Your task to perform on an android device: Open my contact list Image 0: 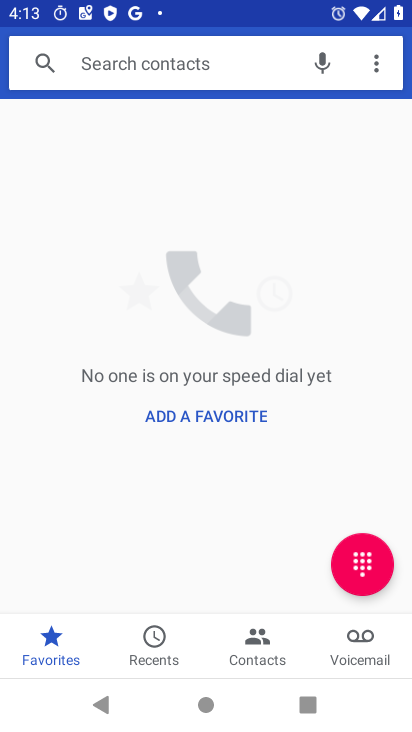
Step 0: press home button
Your task to perform on an android device: Open my contact list Image 1: 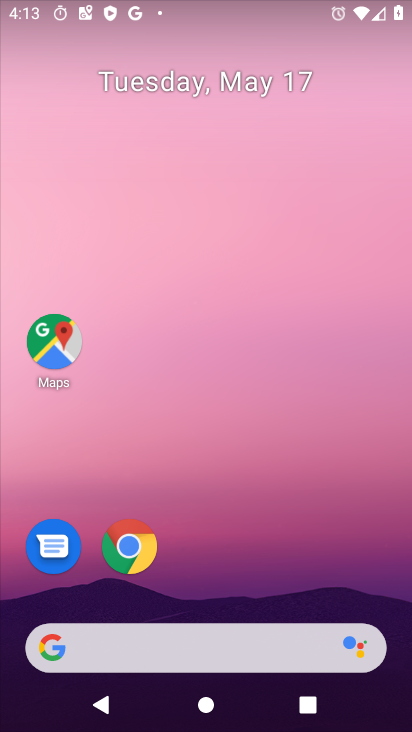
Step 1: drag from (393, 321) to (370, 169)
Your task to perform on an android device: Open my contact list Image 2: 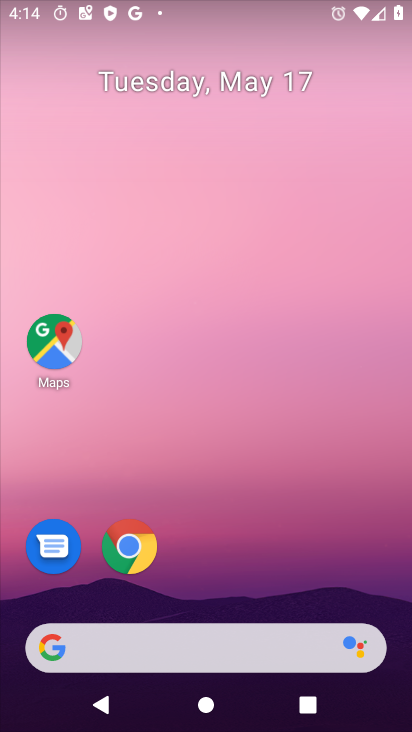
Step 2: drag from (400, 685) to (340, 268)
Your task to perform on an android device: Open my contact list Image 3: 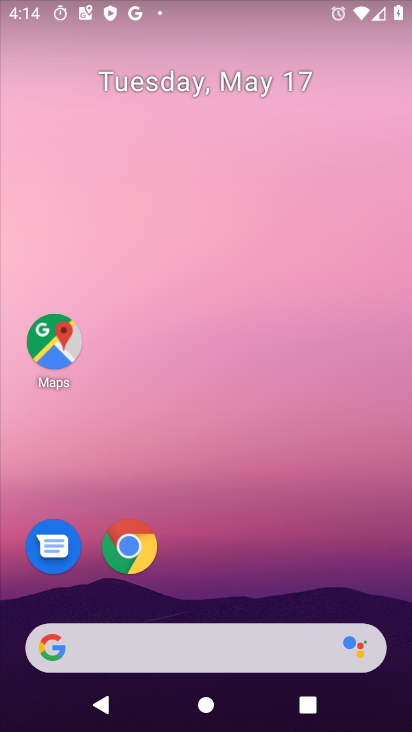
Step 3: drag from (400, 685) to (397, 314)
Your task to perform on an android device: Open my contact list Image 4: 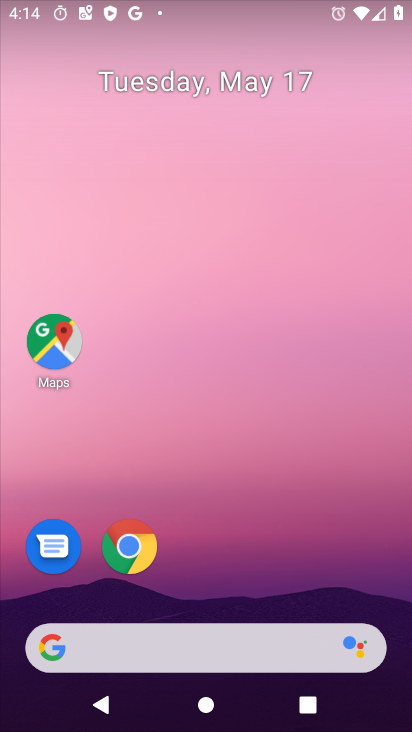
Step 4: drag from (386, 659) to (359, 259)
Your task to perform on an android device: Open my contact list Image 5: 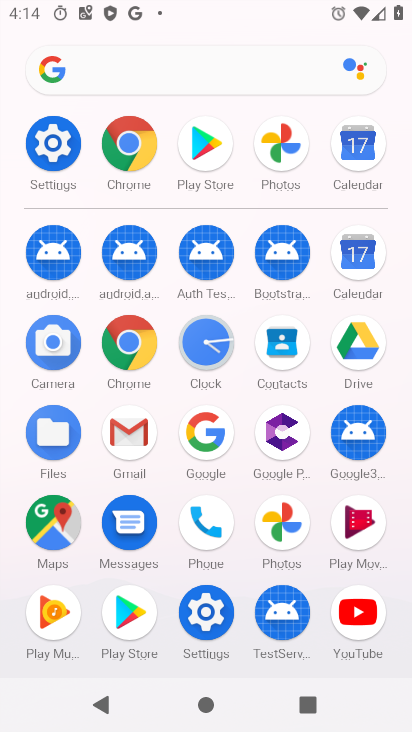
Step 5: click (285, 342)
Your task to perform on an android device: Open my contact list Image 6: 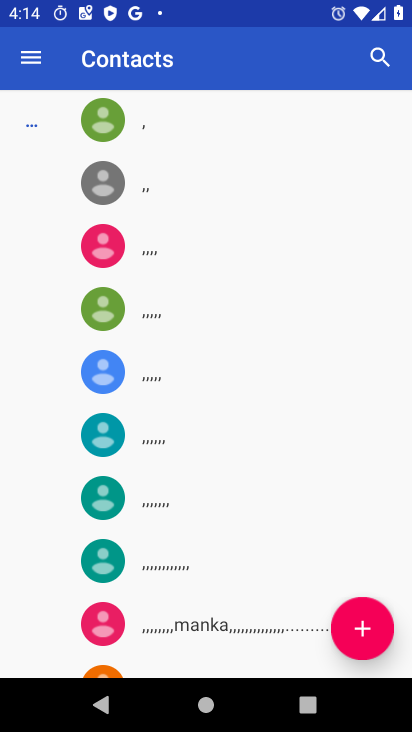
Step 6: click (353, 619)
Your task to perform on an android device: Open my contact list Image 7: 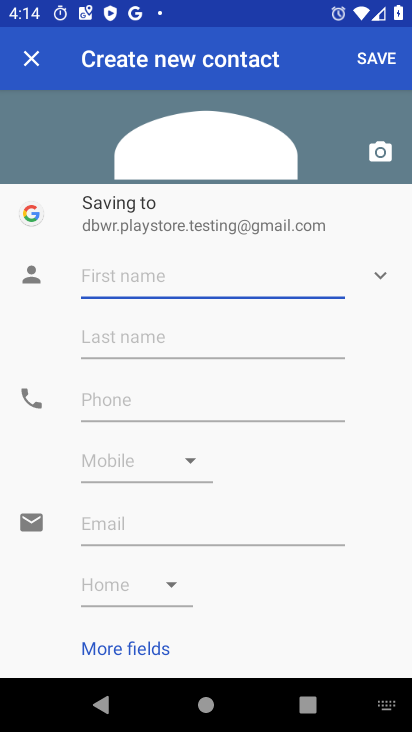
Step 7: click (146, 278)
Your task to perform on an android device: Open my contact list Image 8: 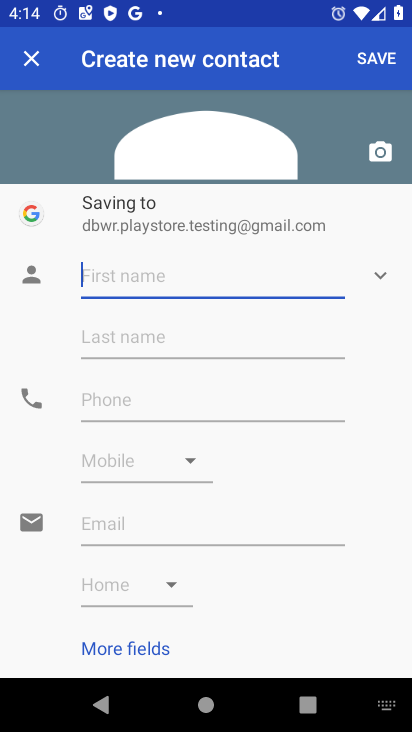
Step 8: type "stdfhjuhg"
Your task to perform on an android device: Open my contact list Image 9: 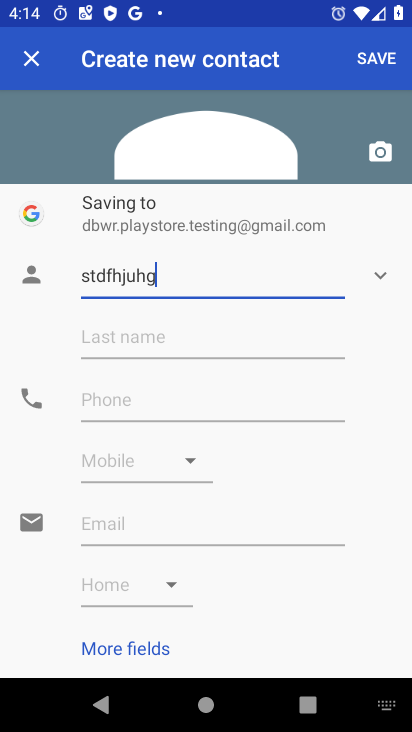
Step 9: click (313, 338)
Your task to perform on an android device: Open my contact list Image 10: 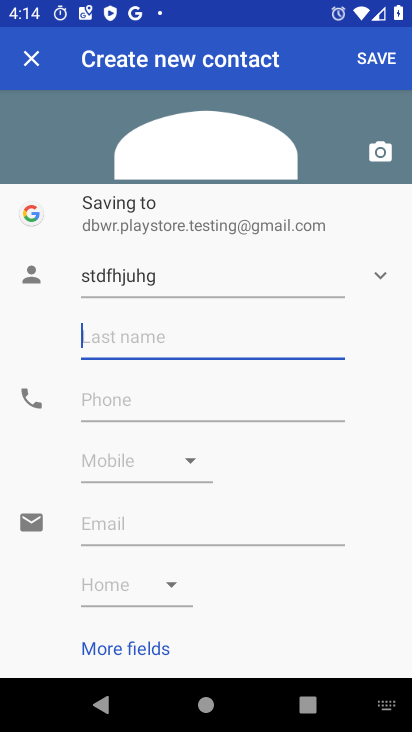
Step 10: type "wz gvgfvb"
Your task to perform on an android device: Open my contact list Image 11: 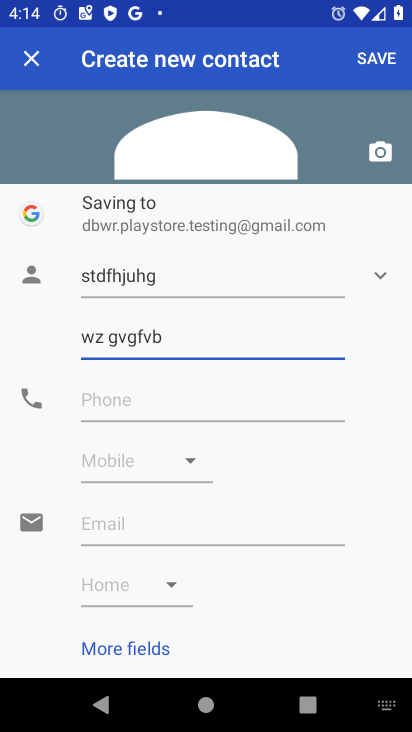
Step 11: click (142, 404)
Your task to perform on an android device: Open my contact list Image 12: 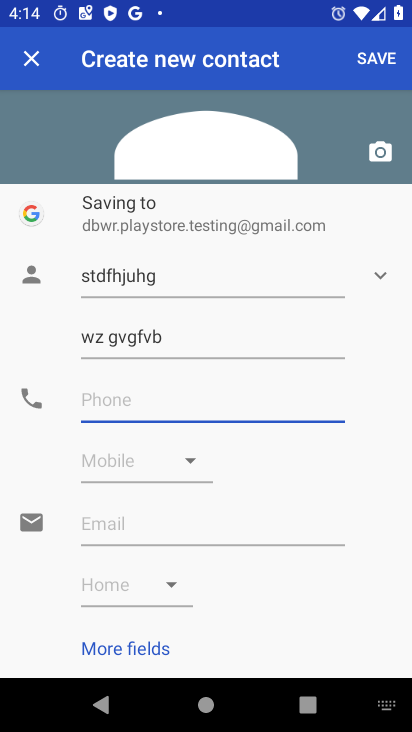
Step 12: type "3456543098"
Your task to perform on an android device: Open my contact list Image 13: 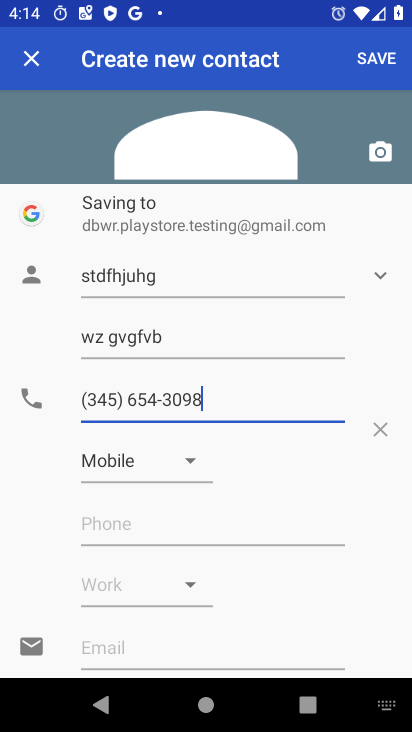
Step 13: click (367, 55)
Your task to perform on an android device: Open my contact list Image 14: 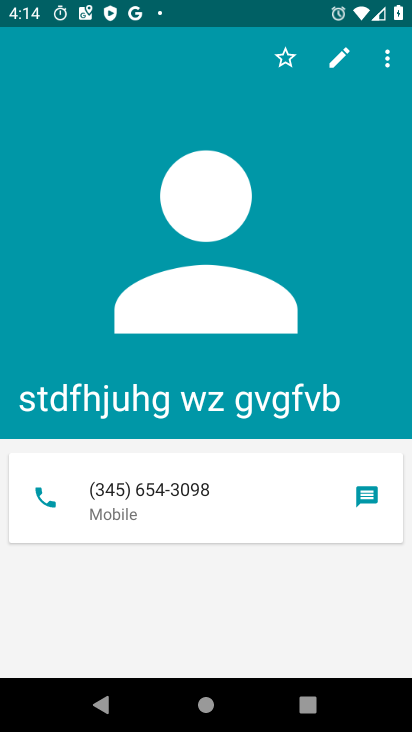
Step 14: task complete